Your task to perform on an android device: change notifications settings Image 0: 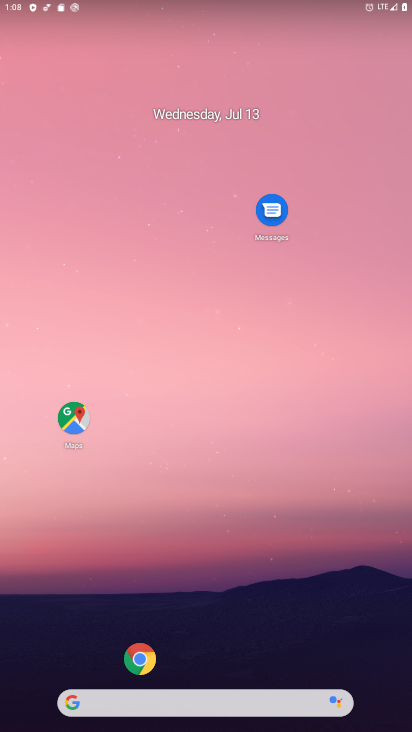
Step 0: drag from (43, 695) to (293, 127)
Your task to perform on an android device: change notifications settings Image 1: 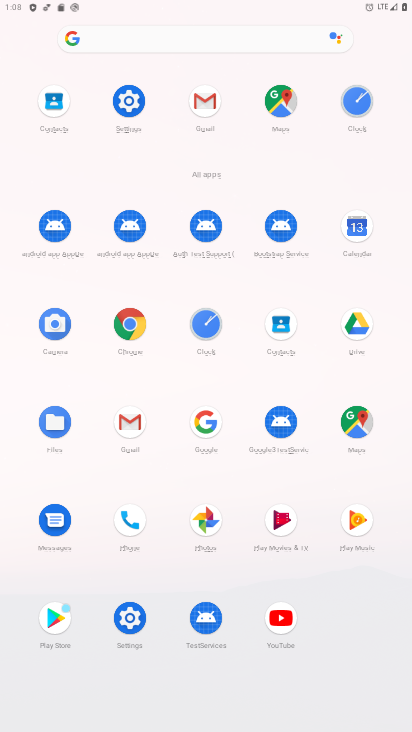
Step 1: click (125, 614)
Your task to perform on an android device: change notifications settings Image 2: 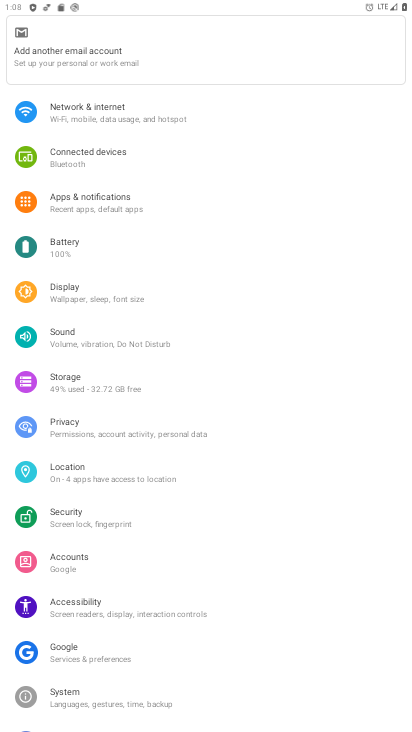
Step 2: click (127, 199)
Your task to perform on an android device: change notifications settings Image 3: 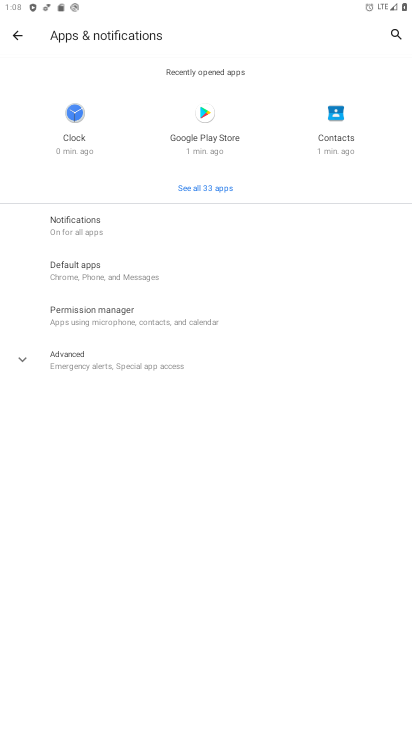
Step 3: click (112, 224)
Your task to perform on an android device: change notifications settings Image 4: 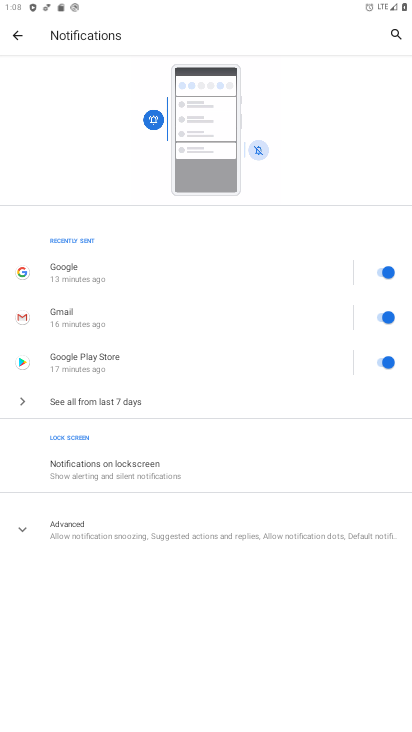
Step 4: click (85, 528)
Your task to perform on an android device: change notifications settings Image 5: 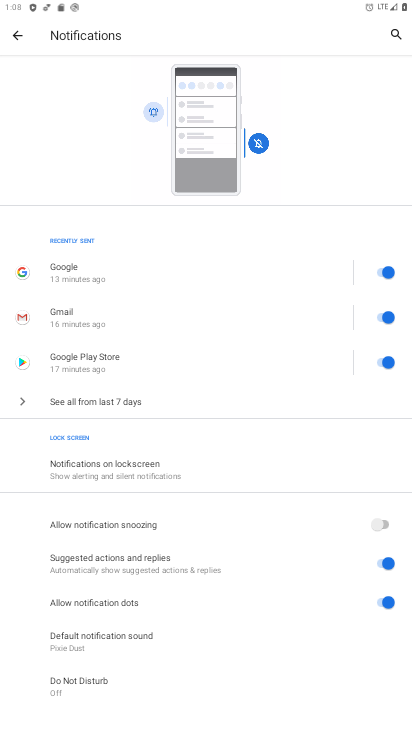
Step 5: task complete